Your task to perform on an android device: Turn off the flashlight Image 0: 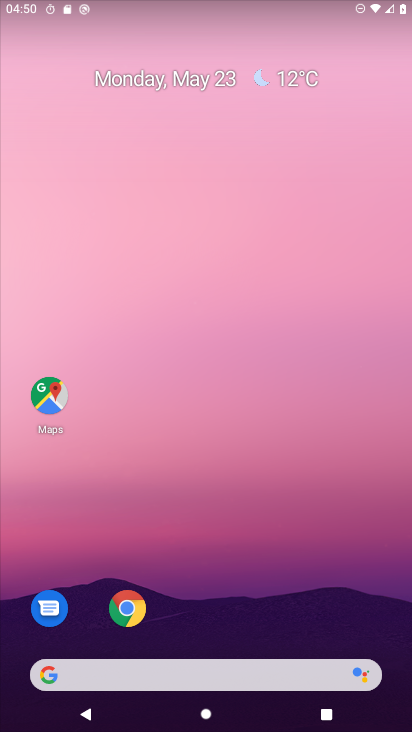
Step 0: drag from (241, 20) to (258, 682)
Your task to perform on an android device: Turn off the flashlight Image 1: 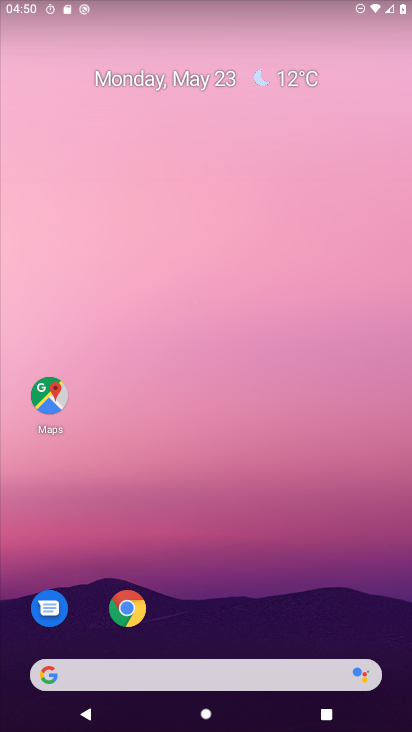
Step 1: task complete